Your task to perform on an android device: check the backup settings in the google photos Image 0: 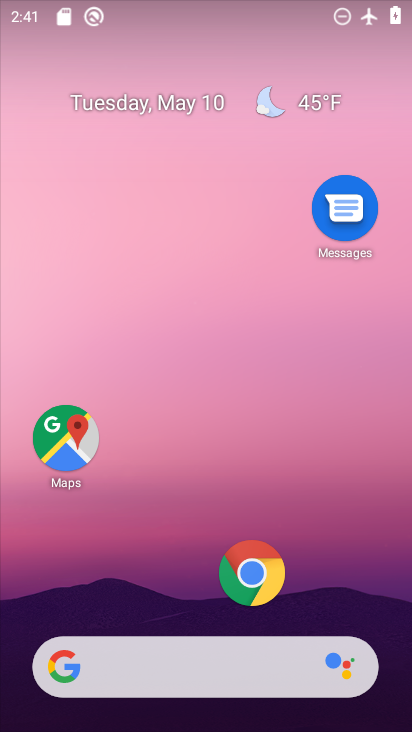
Step 0: drag from (192, 625) to (178, 257)
Your task to perform on an android device: check the backup settings in the google photos Image 1: 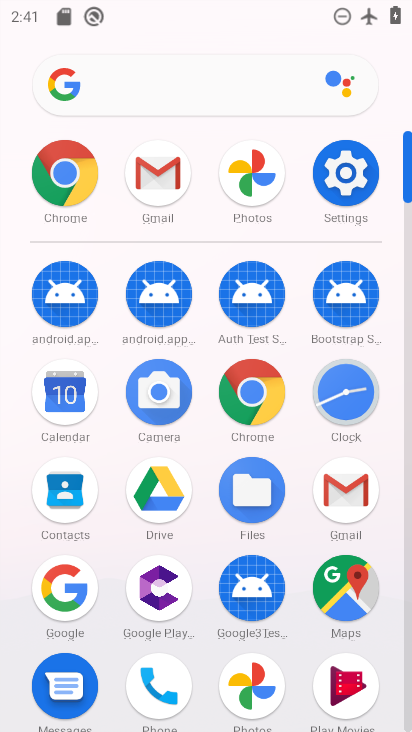
Step 1: click (290, 674)
Your task to perform on an android device: check the backup settings in the google photos Image 2: 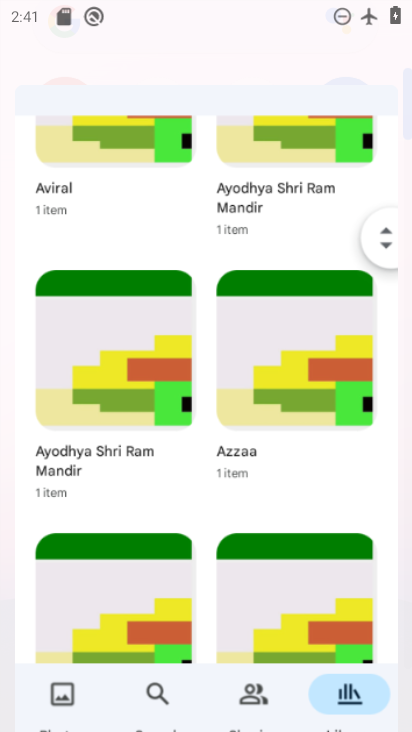
Step 2: click (253, 677)
Your task to perform on an android device: check the backup settings in the google photos Image 3: 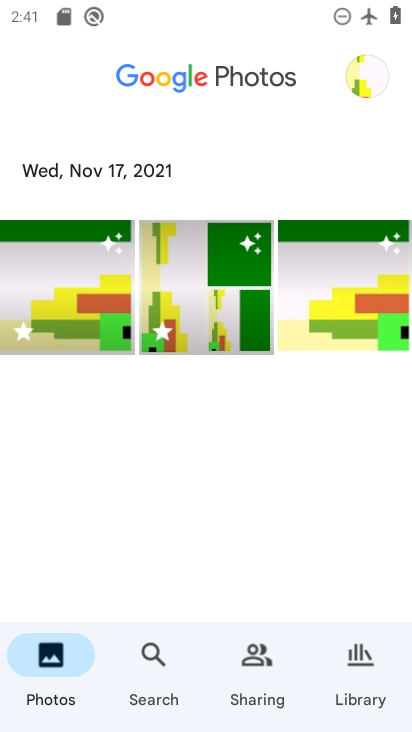
Step 3: click (161, 662)
Your task to perform on an android device: check the backup settings in the google photos Image 4: 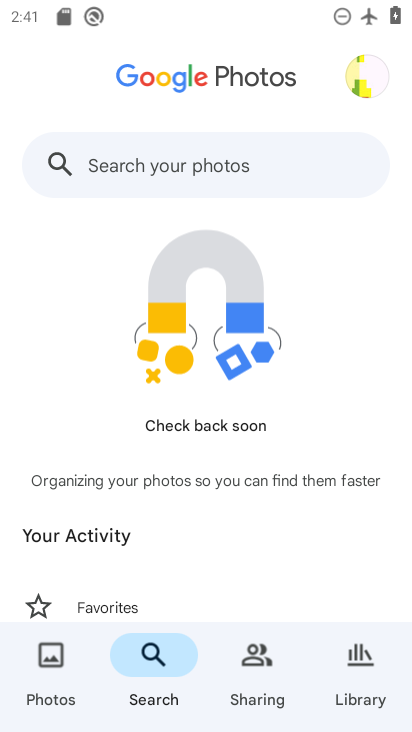
Step 4: click (41, 679)
Your task to perform on an android device: check the backup settings in the google photos Image 5: 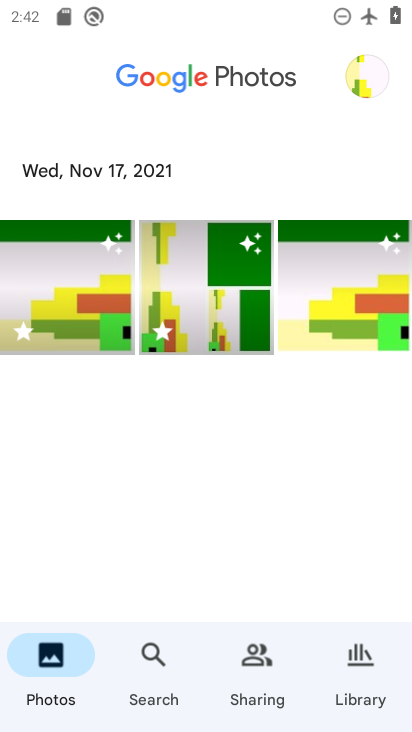
Step 5: drag from (209, 532) to (258, 57)
Your task to perform on an android device: check the backup settings in the google photos Image 6: 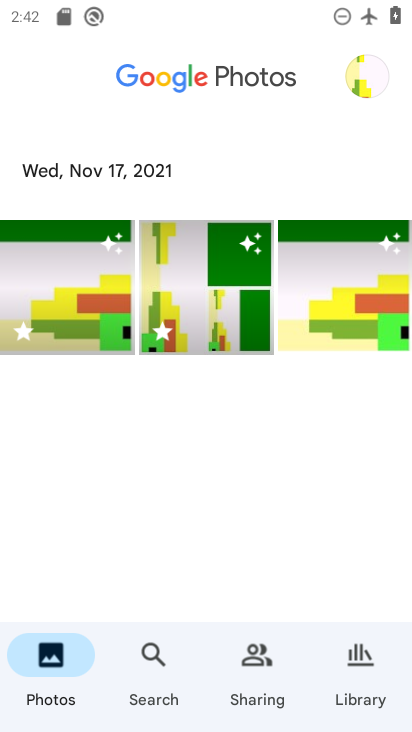
Step 6: click (352, 83)
Your task to perform on an android device: check the backup settings in the google photos Image 7: 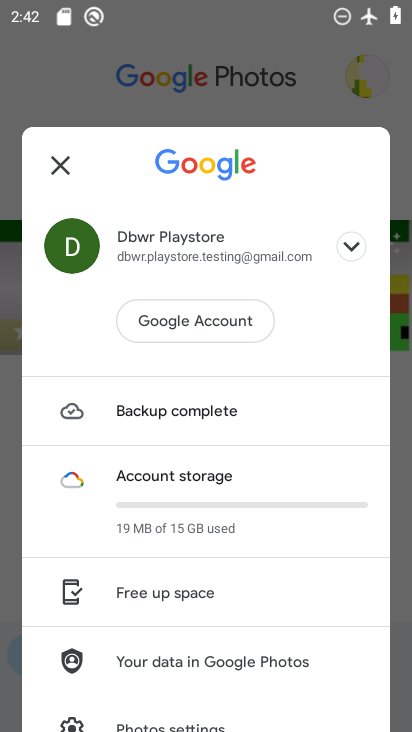
Step 7: drag from (181, 587) to (257, 244)
Your task to perform on an android device: check the backup settings in the google photos Image 8: 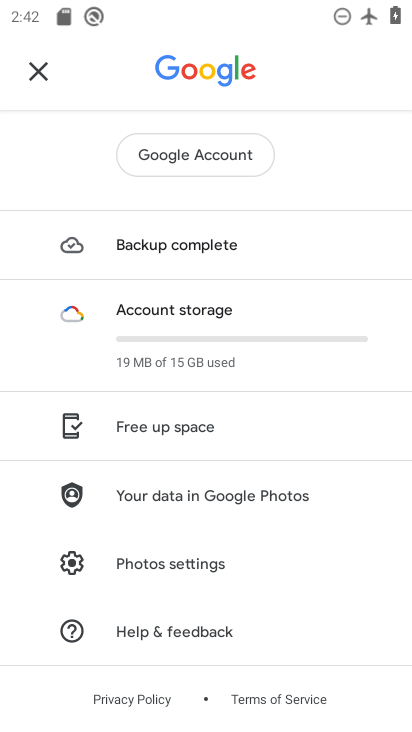
Step 8: click (178, 233)
Your task to perform on an android device: check the backup settings in the google photos Image 9: 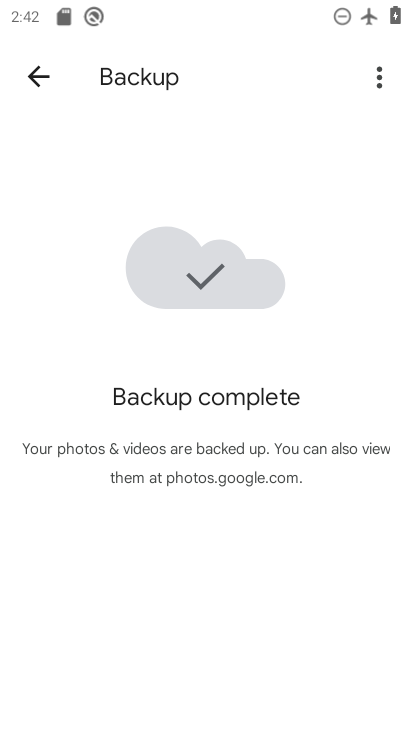
Step 9: task complete